Your task to perform on an android device: Open Yahoo.com Image 0: 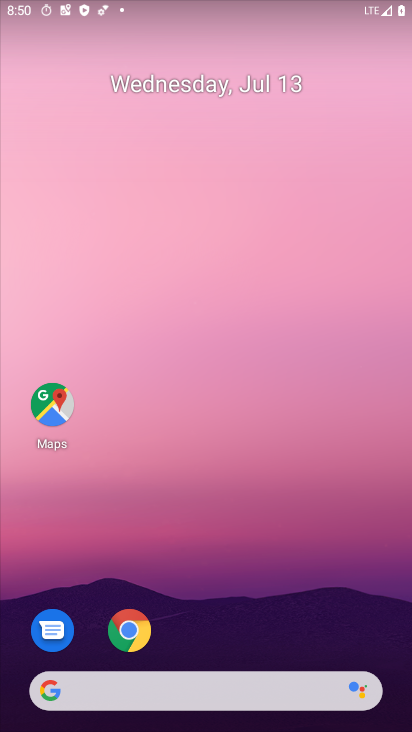
Step 0: drag from (341, 611) to (387, 102)
Your task to perform on an android device: Open Yahoo.com Image 1: 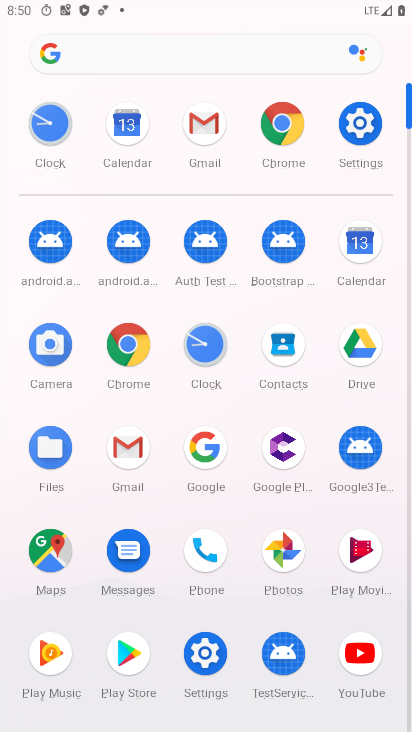
Step 1: click (131, 346)
Your task to perform on an android device: Open Yahoo.com Image 2: 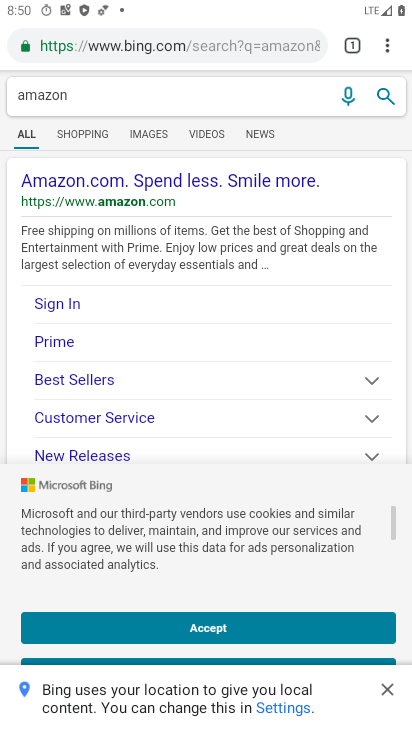
Step 2: click (248, 44)
Your task to perform on an android device: Open Yahoo.com Image 3: 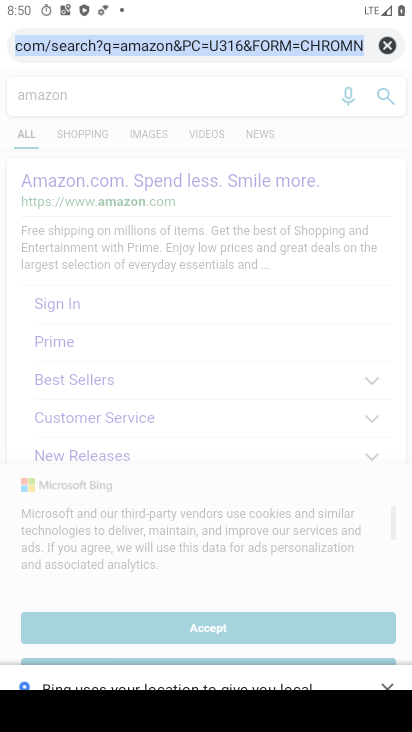
Step 3: type "yahoo.com"
Your task to perform on an android device: Open Yahoo.com Image 4: 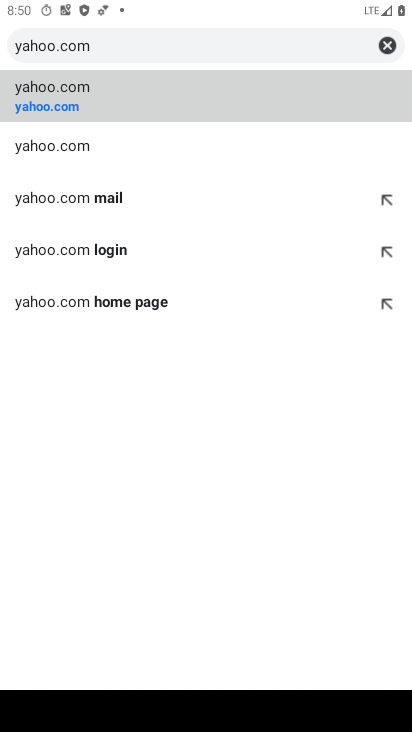
Step 4: click (136, 92)
Your task to perform on an android device: Open Yahoo.com Image 5: 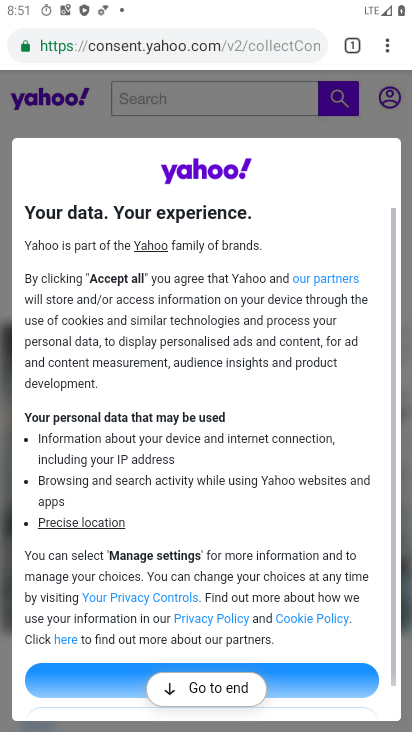
Step 5: task complete